Your task to perform on an android device: Go to Android settings Image 0: 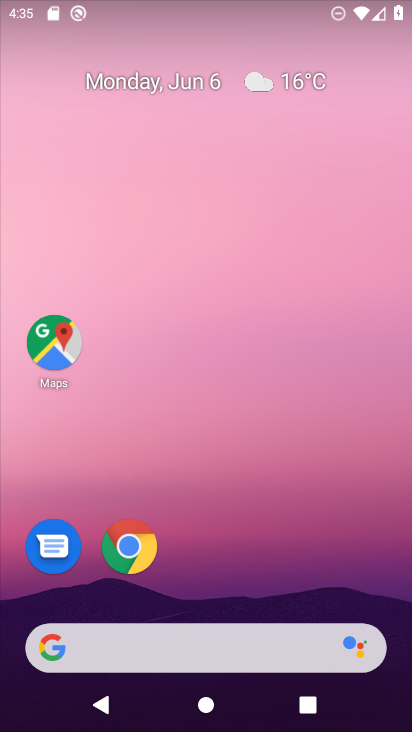
Step 0: drag from (204, 619) to (198, 85)
Your task to perform on an android device: Go to Android settings Image 1: 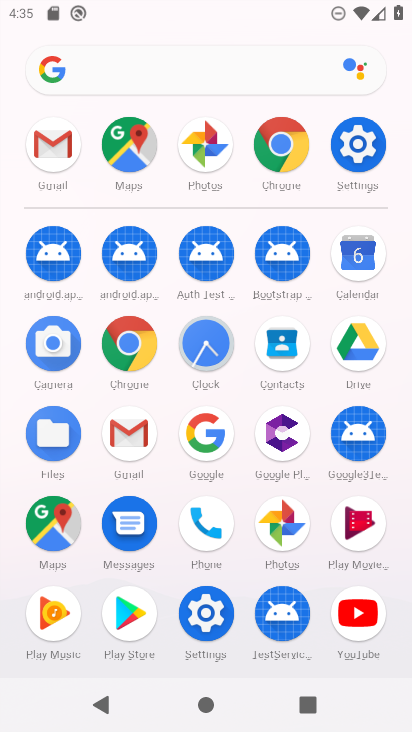
Step 1: click (356, 142)
Your task to perform on an android device: Go to Android settings Image 2: 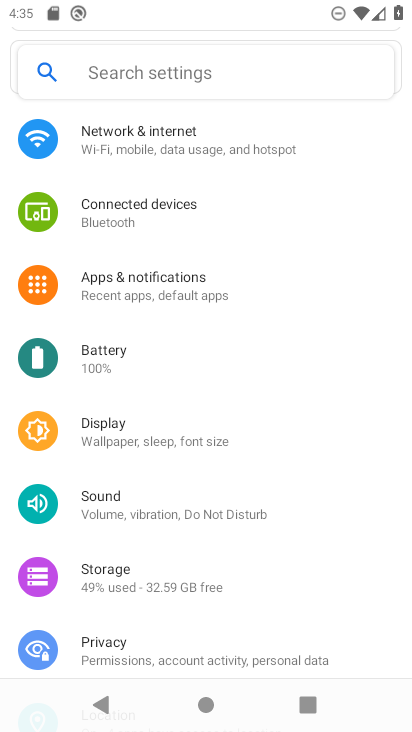
Step 2: task complete